Your task to perform on an android device: turn off smart reply in the gmail app Image 0: 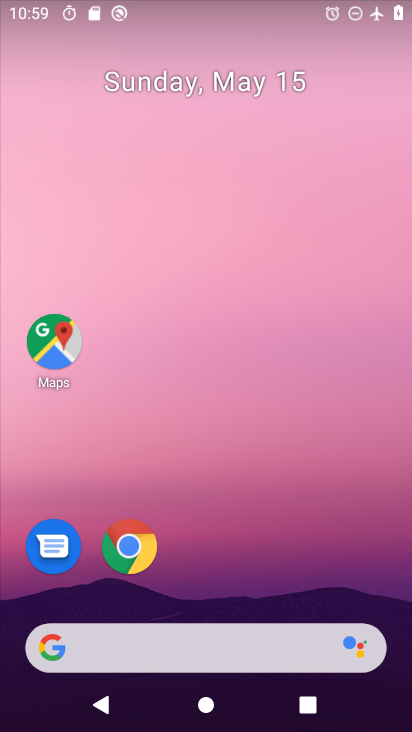
Step 0: drag from (258, 366) to (259, 56)
Your task to perform on an android device: turn off smart reply in the gmail app Image 1: 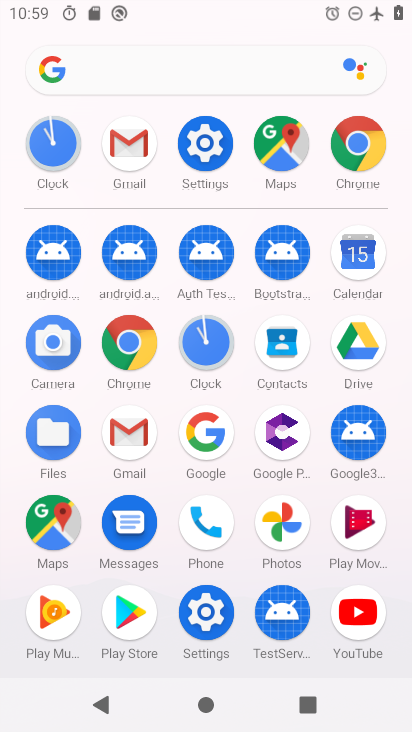
Step 1: click (133, 436)
Your task to perform on an android device: turn off smart reply in the gmail app Image 2: 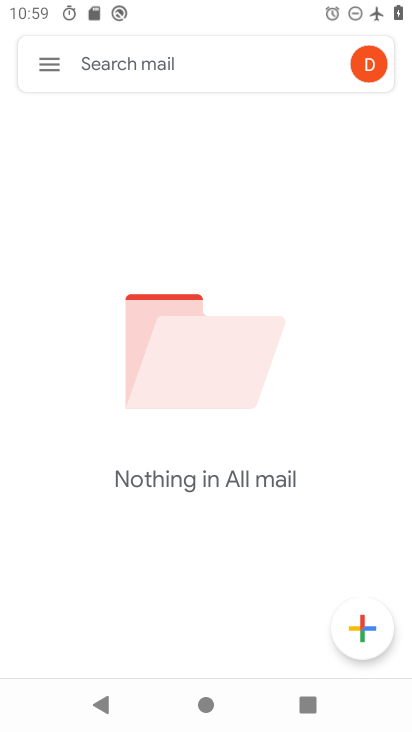
Step 2: click (36, 60)
Your task to perform on an android device: turn off smart reply in the gmail app Image 3: 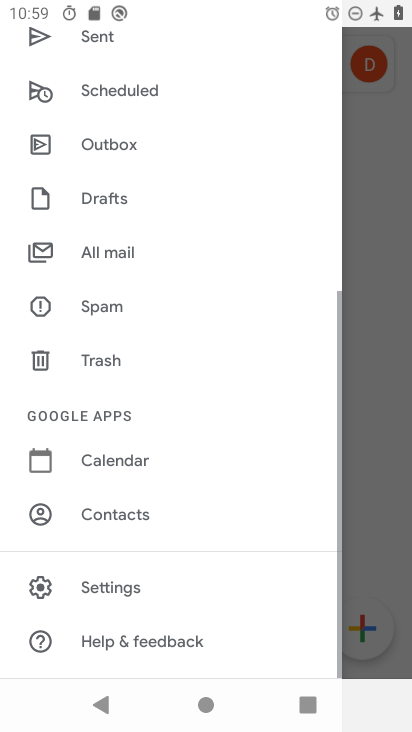
Step 3: click (146, 579)
Your task to perform on an android device: turn off smart reply in the gmail app Image 4: 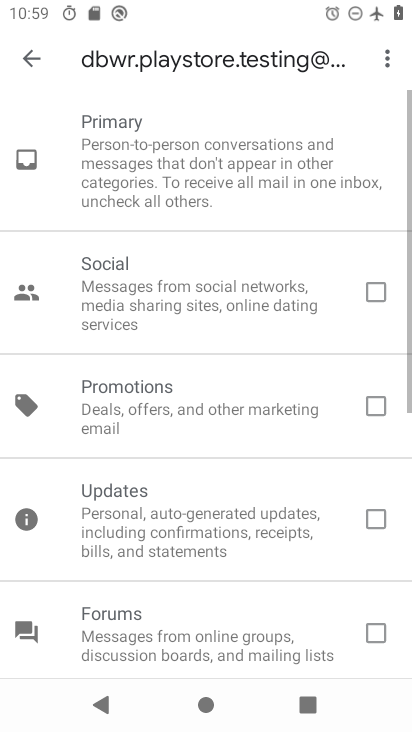
Step 4: drag from (277, 227) to (296, 93)
Your task to perform on an android device: turn off smart reply in the gmail app Image 5: 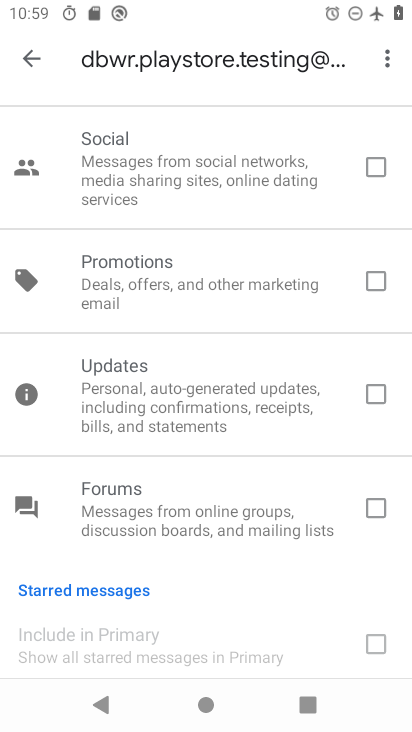
Step 5: click (49, 57)
Your task to perform on an android device: turn off smart reply in the gmail app Image 6: 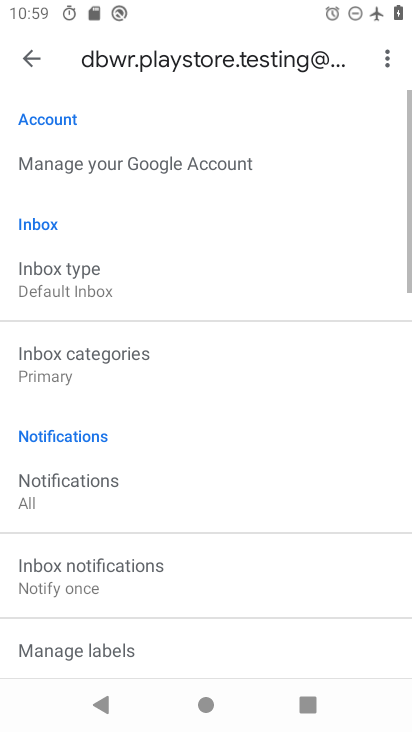
Step 6: drag from (200, 585) to (271, 73)
Your task to perform on an android device: turn off smart reply in the gmail app Image 7: 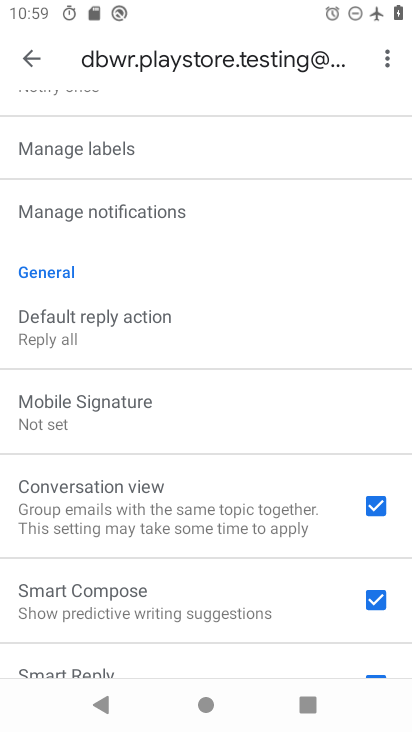
Step 7: drag from (233, 502) to (293, 135)
Your task to perform on an android device: turn off smart reply in the gmail app Image 8: 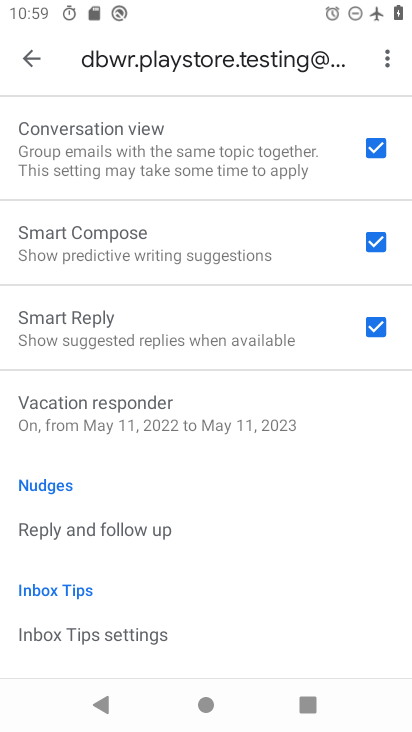
Step 8: click (372, 318)
Your task to perform on an android device: turn off smart reply in the gmail app Image 9: 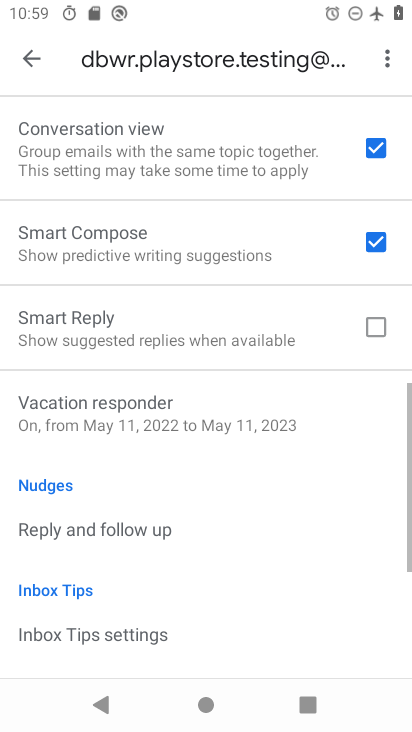
Step 9: task complete